Your task to perform on an android device: change alarm snooze length Image 0: 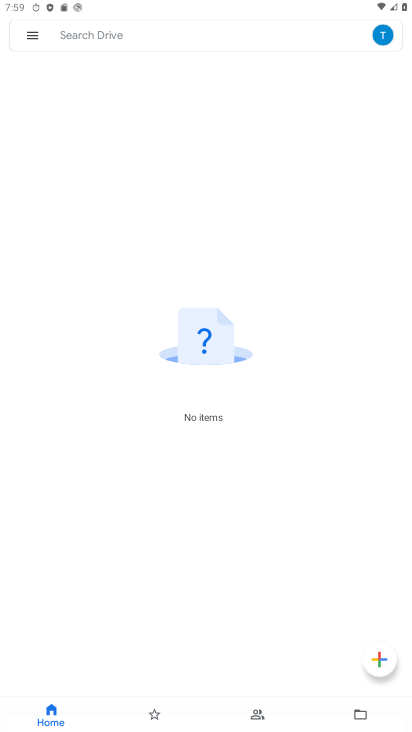
Step 0: press back button
Your task to perform on an android device: change alarm snooze length Image 1: 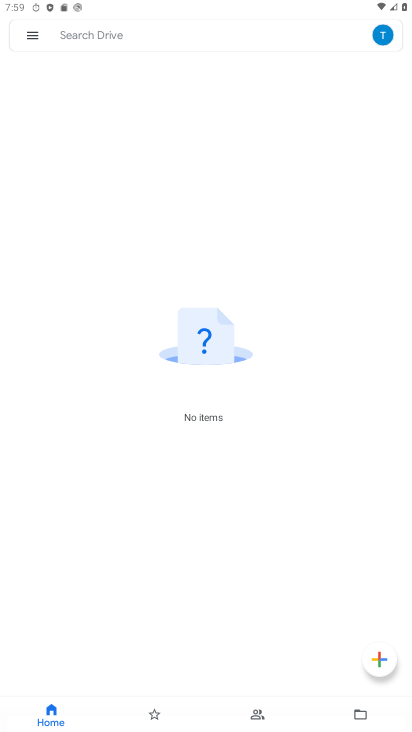
Step 1: press back button
Your task to perform on an android device: change alarm snooze length Image 2: 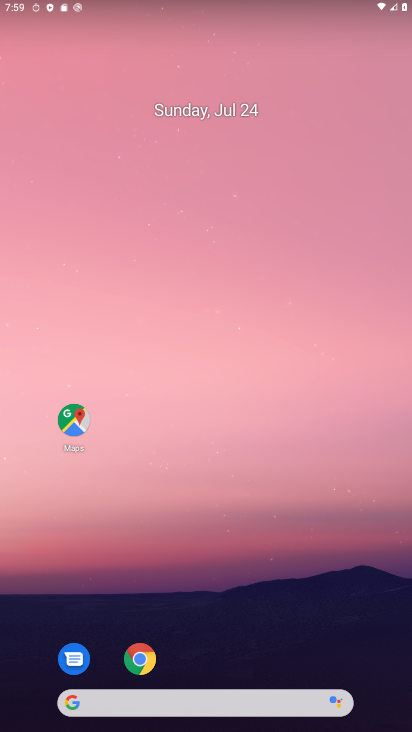
Step 2: press back button
Your task to perform on an android device: change alarm snooze length Image 3: 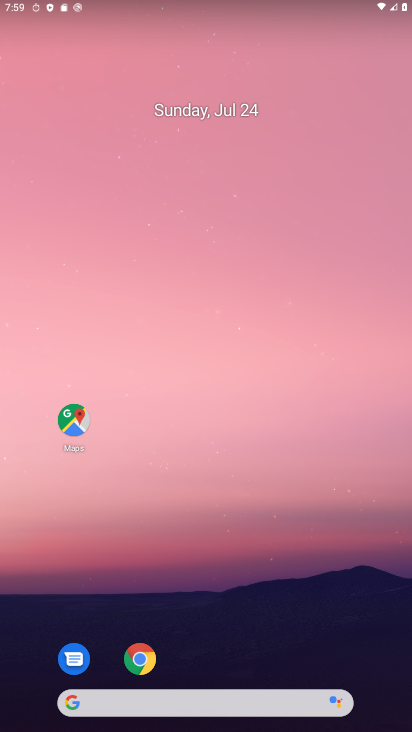
Step 3: drag from (190, 633) to (217, 271)
Your task to perform on an android device: change alarm snooze length Image 4: 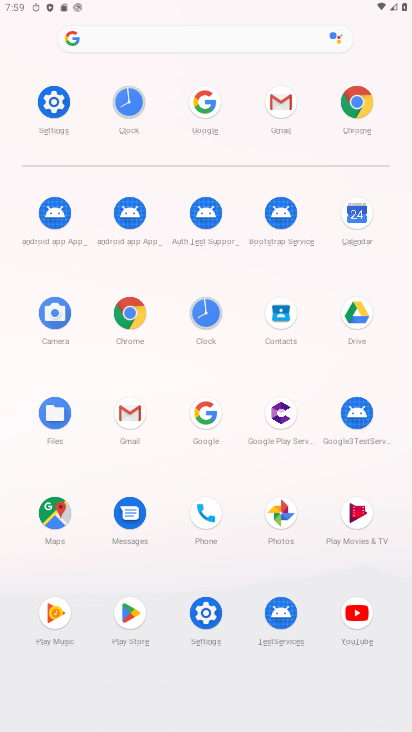
Step 4: click (214, 307)
Your task to perform on an android device: change alarm snooze length Image 5: 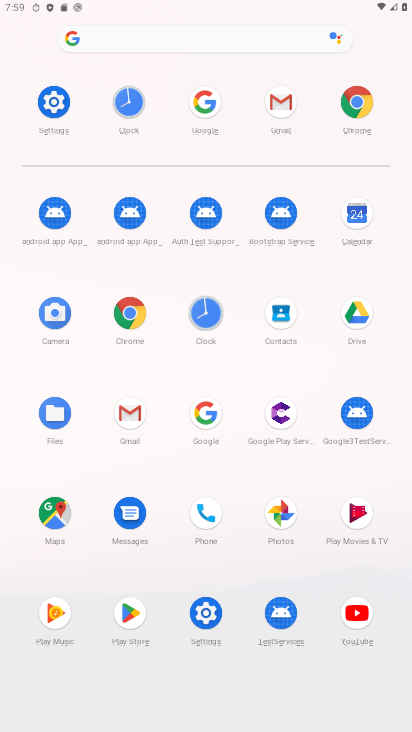
Step 5: click (213, 306)
Your task to perform on an android device: change alarm snooze length Image 6: 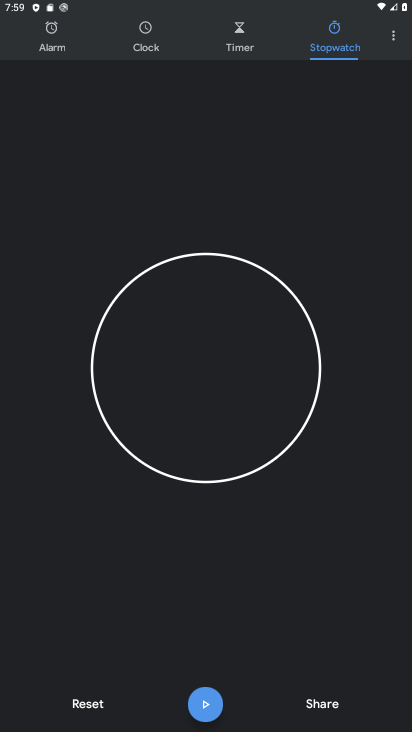
Step 6: drag from (396, 30) to (331, 293)
Your task to perform on an android device: change alarm snooze length Image 7: 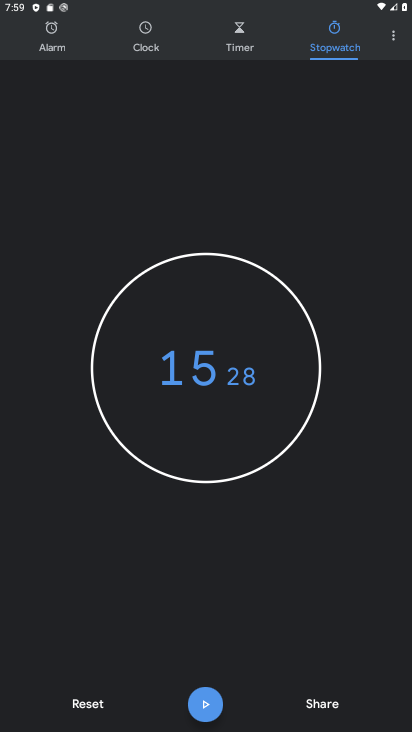
Step 7: click (320, 58)
Your task to perform on an android device: change alarm snooze length Image 8: 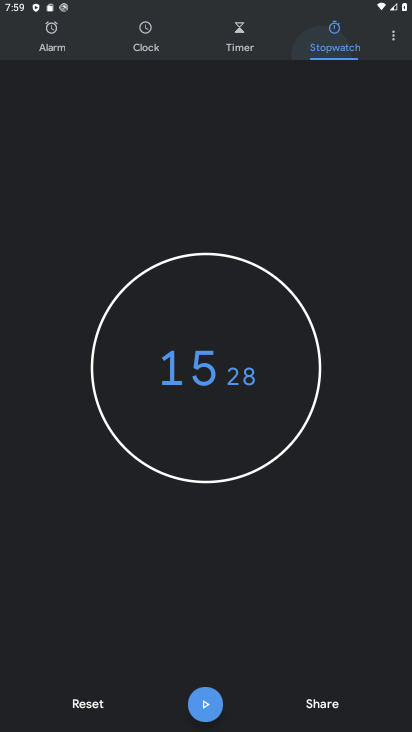
Step 8: click (321, 59)
Your task to perform on an android device: change alarm snooze length Image 9: 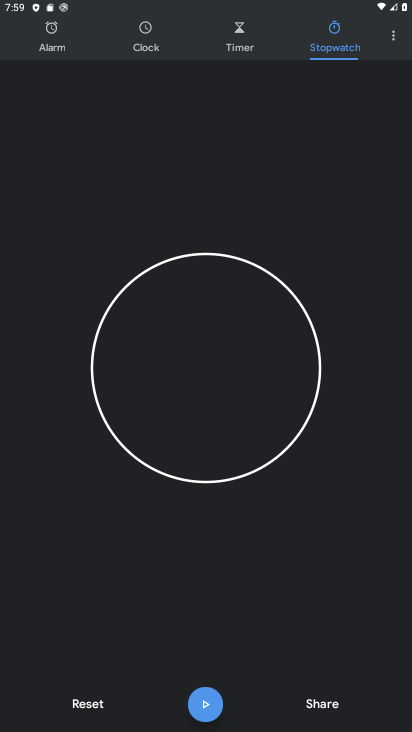
Step 9: click (379, 42)
Your task to perform on an android device: change alarm snooze length Image 10: 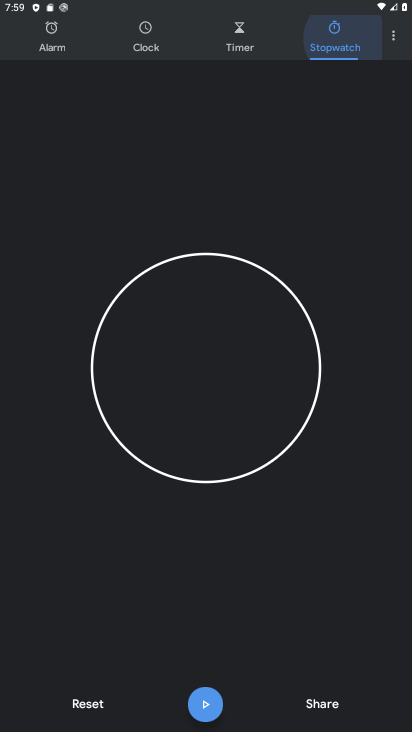
Step 10: click (389, 49)
Your task to perform on an android device: change alarm snooze length Image 11: 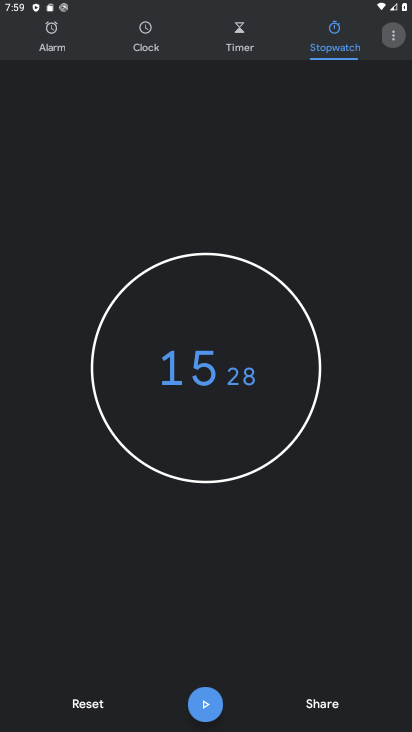
Step 11: click (393, 51)
Your task to perform on an android device: change alarm snooze length Image 12: 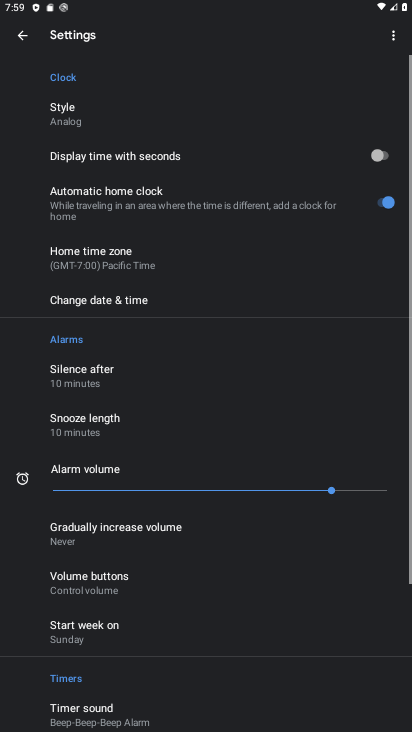
Step 12: click (317, 73)
Your task to perform on an android device: change alarm snooze length Image 13: 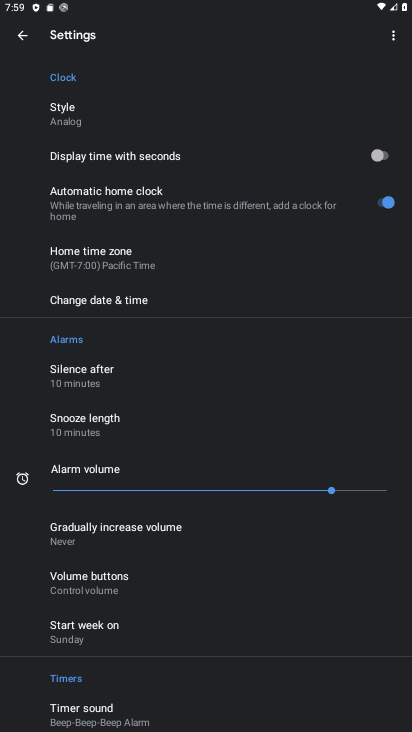
Step 13: click (90, 432)
Your task to perform on an android device: change alarm snooze length Image 14: 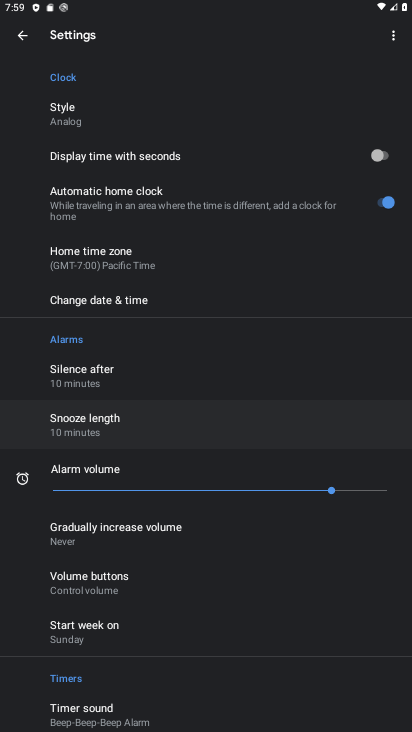
Step 14: click (91, 434)
Your task to perform on an android device: change alarm snooze length Image 15: 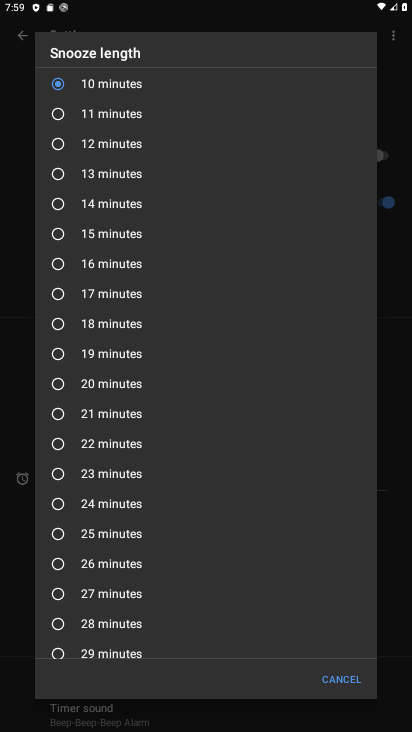
Step 15: click (62, 441)
Your task to perform on an android device: change alarm snooze length Image 16: 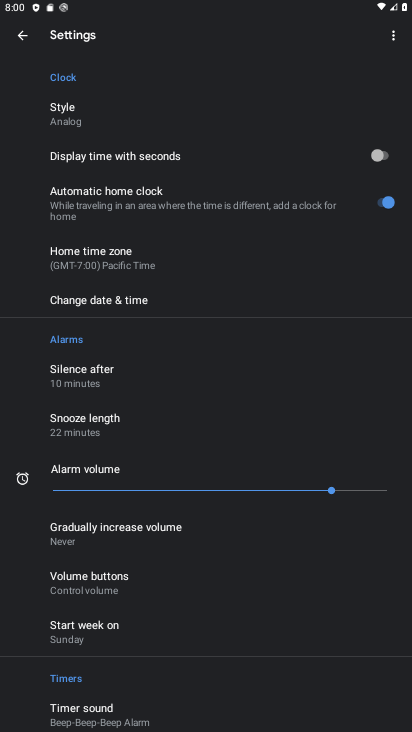
Step 16: click (72, 421)
Your task to perform on an android device: change alarm snooze length Image 17: 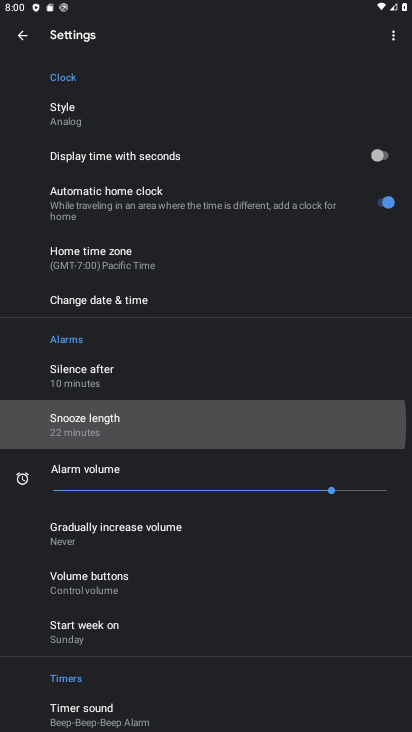
Step 17: click (71, 421)
Your task to perform on an android device: change alarm snooze length Image 18: 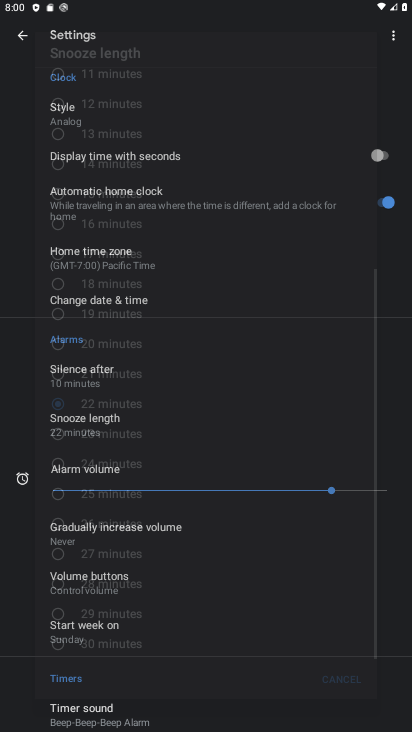
Step 18: click (70, 420)
Your task to perform on an android device: change alarm snooze length Image 19: 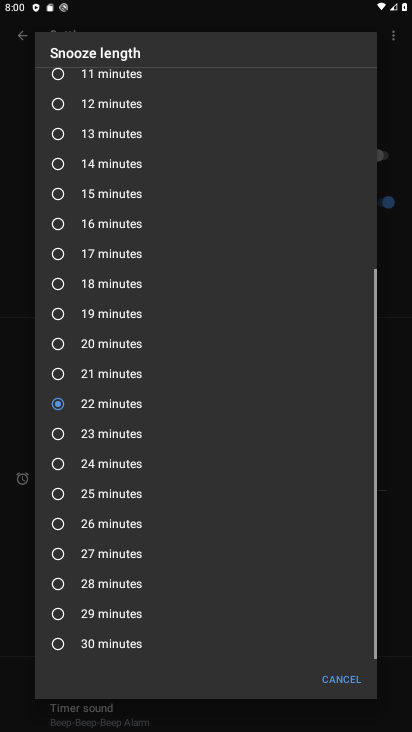
Step 19: click (70, 420)
Your task to perform on an android device: change alarm snooze length Image 20: 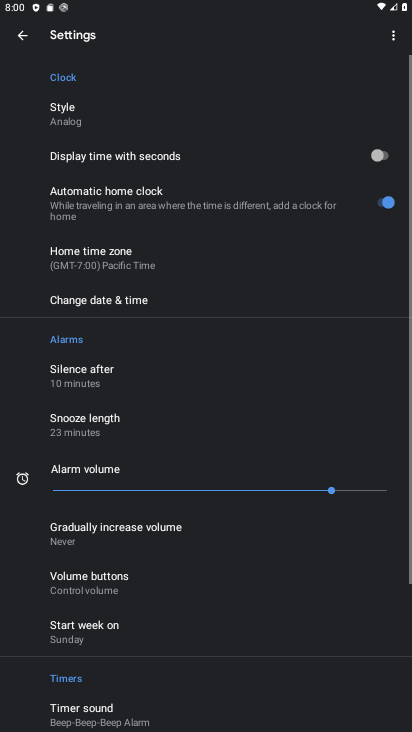
Step 20: click (72, 423)
Your task to perform on an android device: change alarm snooze length Image 21: 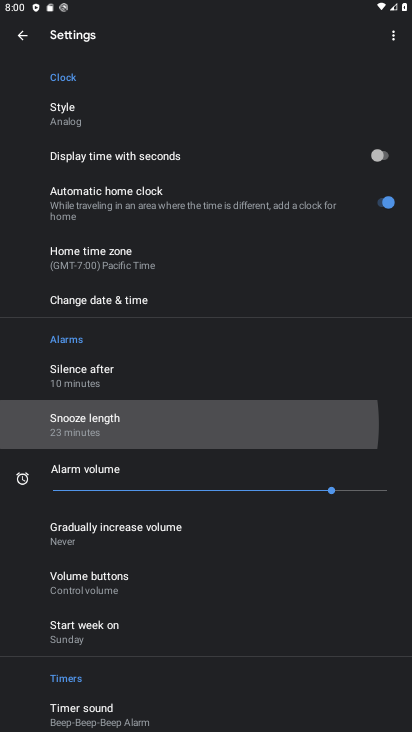
Step 21: click (73, 422)
Your task to perform on an android device: change alarm snooze length Image 22: 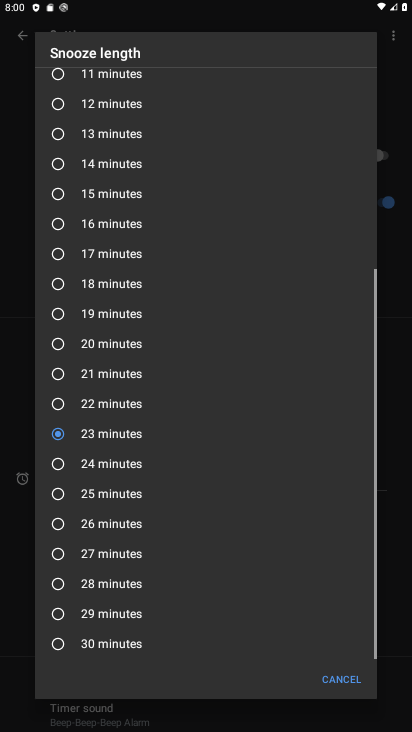
Step 22: click (64, 465)
Your task to perform on an android device: change alarm snooze length Image 23: 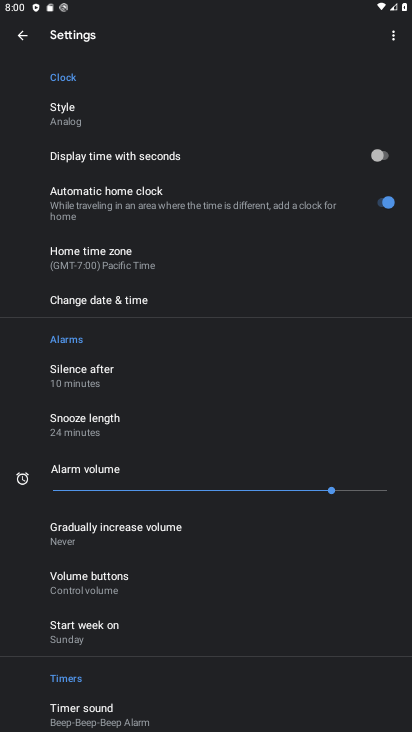
Step 23: task complete